Your task to perform on an android device: Go to sound settings Image 0: 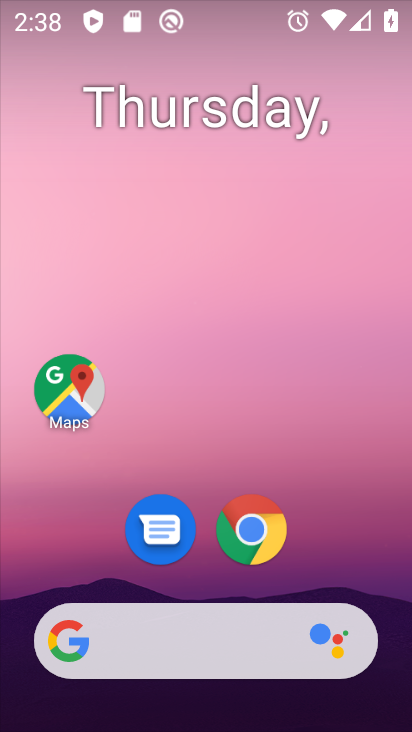
Step 0: drag from (238, 705) to (235, 3)
Your task to perform on an android device: Go to sound settings Image 1: 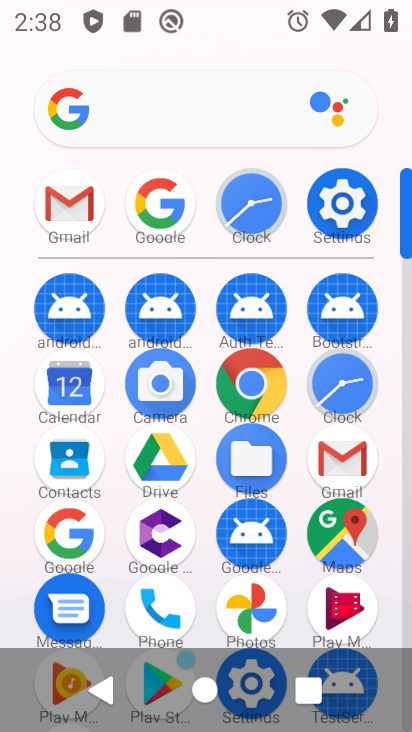
Step 1: click (344, 198)
Your task to perform on an android device: Go to sound settings Image 2: 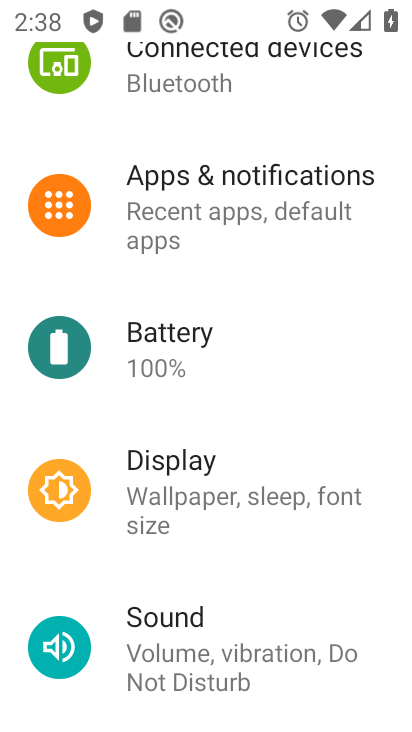
Step 2: drag from (299, 615) to (283, 97)
Your task to perform on an android device: Go to sound settings Image 3: 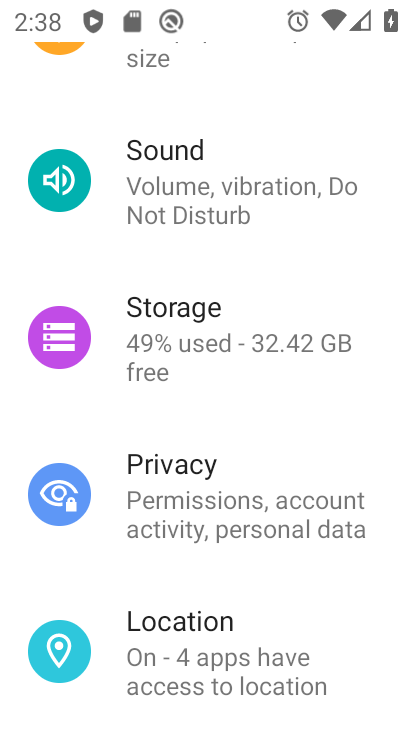
Step 3: click (253, 192)
Your task to perform on an android device: Go to sound settings Image 4: 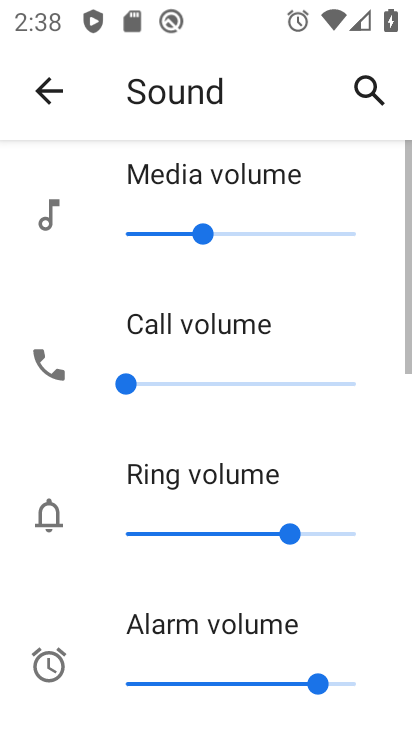
Step 4: task complete